Your task to perform on an android device: Go to accessibility settings Image 0: 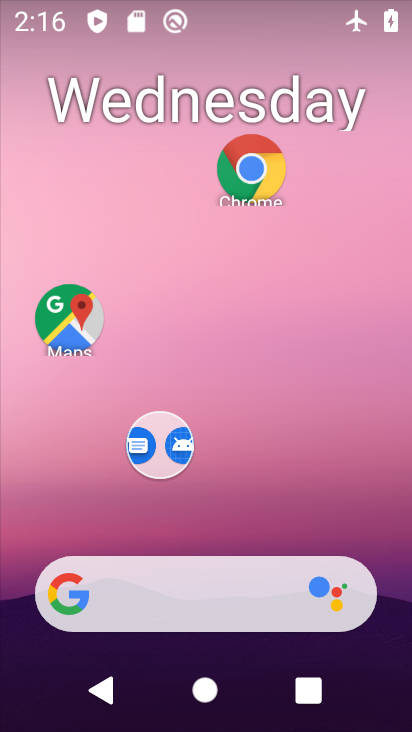
Step 0: drag from (203, 8) to (238, 59)
Your task to perform on an android device: Go to accessibility settings Image 1: 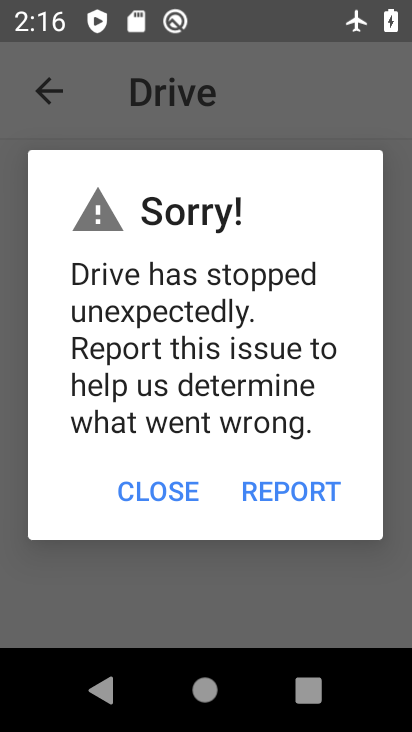
Step 1: press home button
Your task to perform on an android device: Go to accessibility settings Image 2: 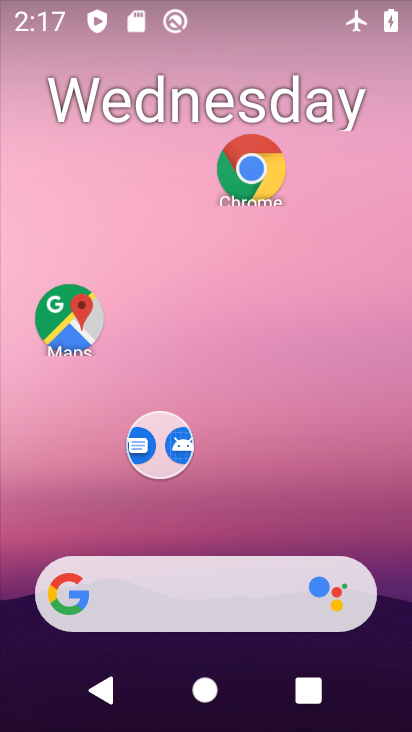
Step 2: drag from (233, 572) to (235, 36)
Your task to perform on an android device: Go to accessibility settings Image 3: 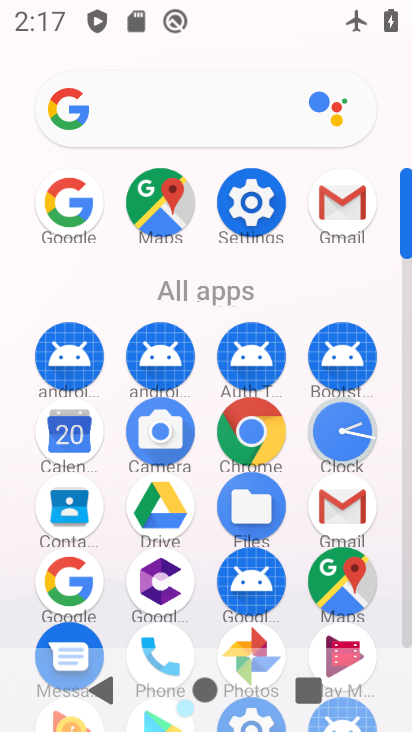
Step 3: click (242, 225)
Your task to perform on an android device: Go to accessibility settings Image 4: 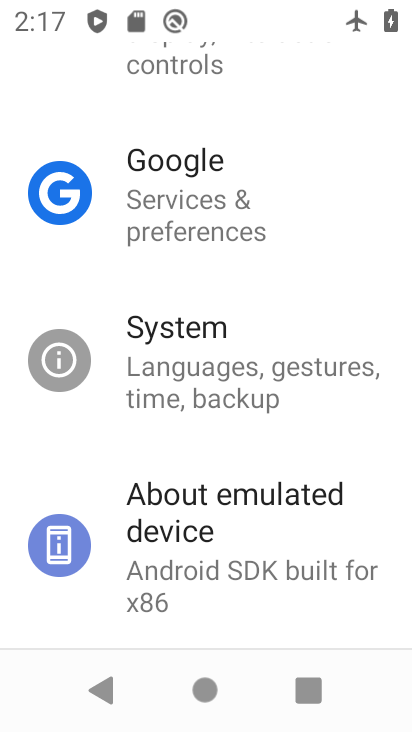
Step 4: drag from (246, 207) to (230, 599)
Your task to perform on an android device: Go to accessibility settings Image 5: 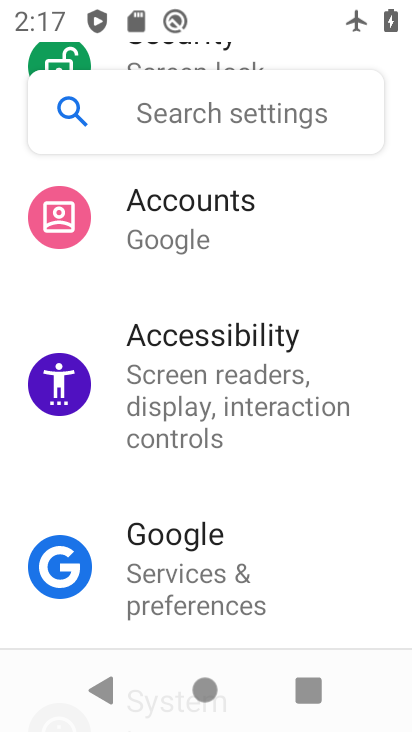
Step 5: click (218, 426)
Your task to perform on an android device: Go to accessibility settings Image 6: 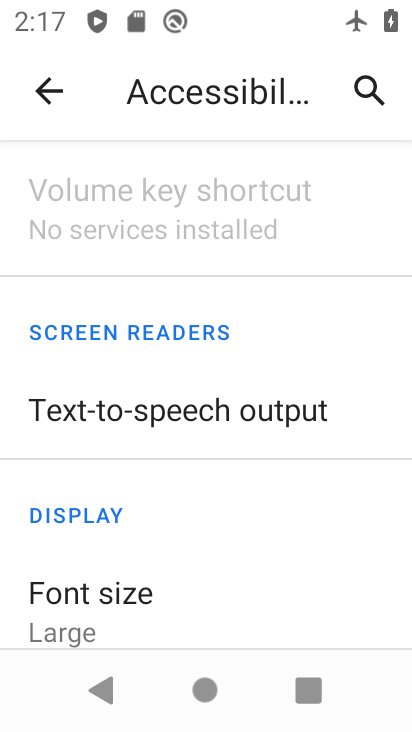
Step 6: task complete